Your task to perform on an android device: Open wifi settings Image 0: 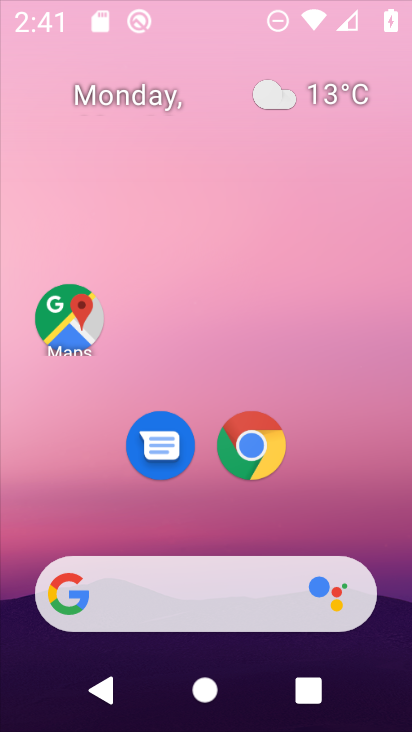
Step 0: drag from (391, 586) to (230, 113)
Your task to perform on an android device: Open wifi settings Image 1: 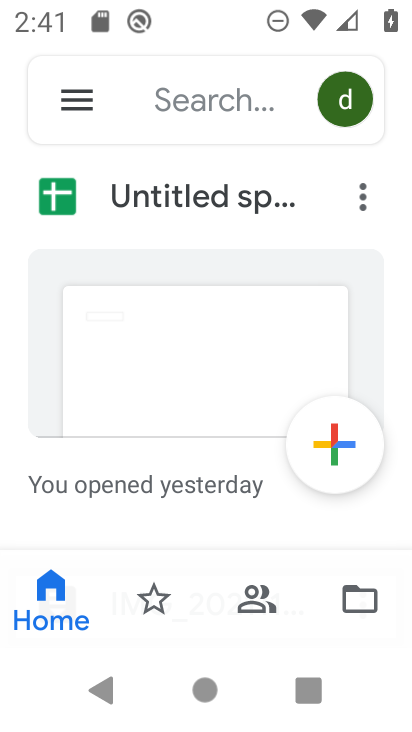
Step 1: press home button
Your task to perform on an android device: Open wifi settings Image 2: 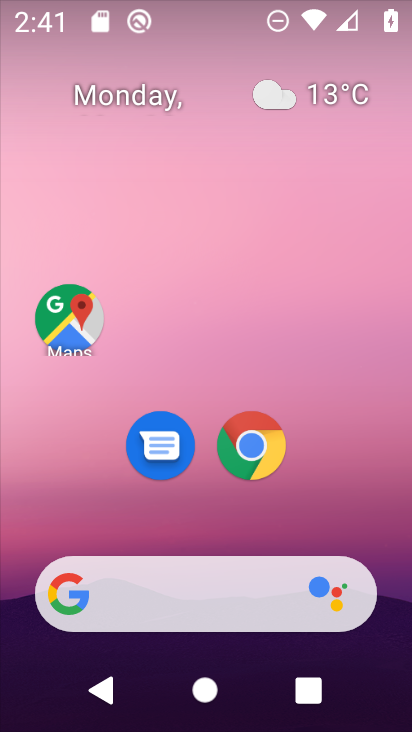
Step 2: drag from (378, 624) to (24, 3)
Your task to perform on an android device: Open wifi settings Image 3: 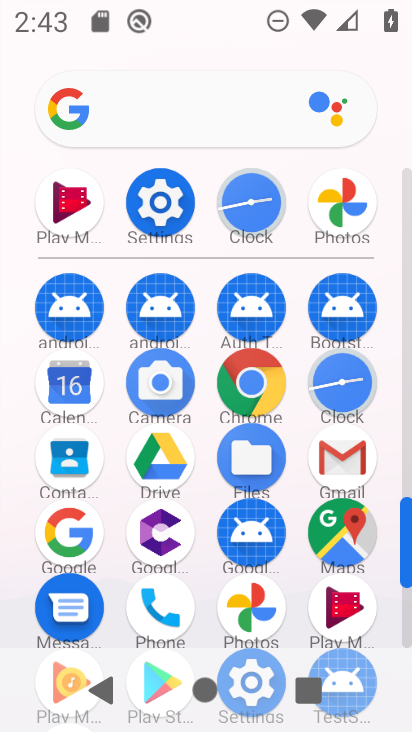
Step 3: click (169, 212)
Your task to perform on an android device: Open wifi settings Image 4: 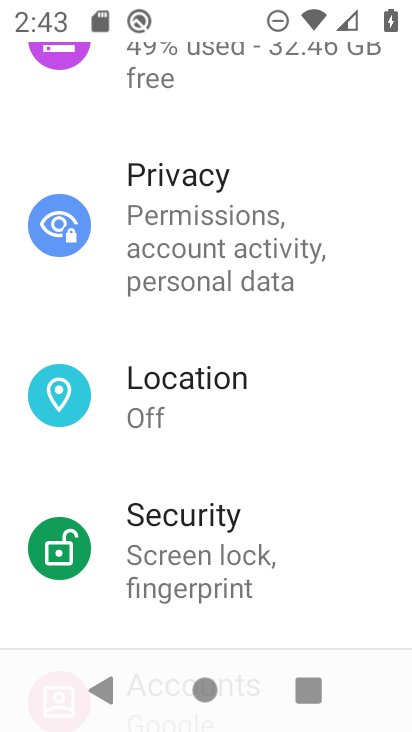
Step 4: drag from (189, 162) to (214, 599)
Your task to perform on an android device: Open wifi settings Image 5: 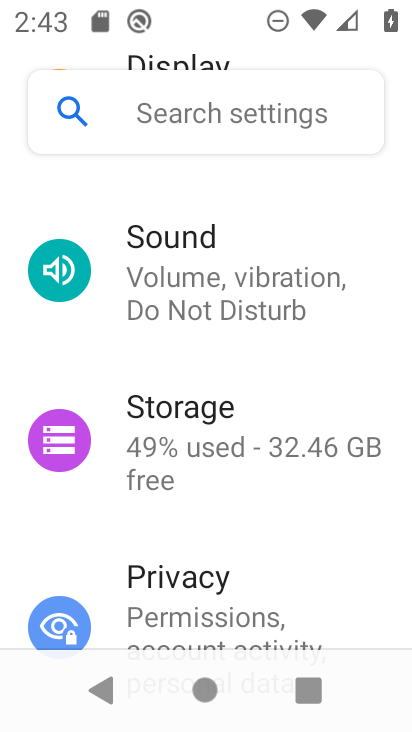
Step 5: drag from (166, 186) to (194, 508)
Your task to perform on an android device: Open wifi settings Image 6: 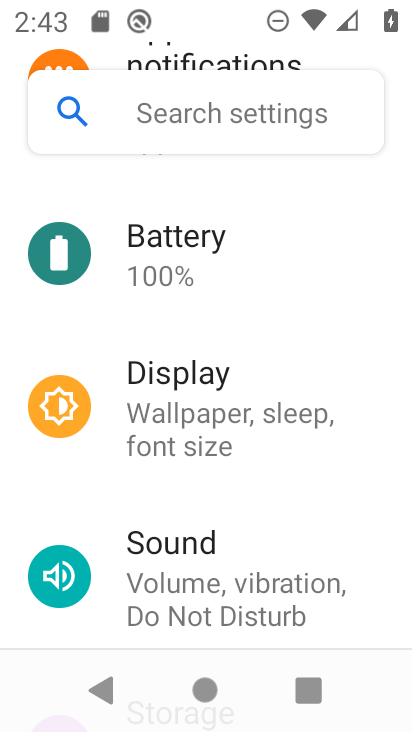
Step 6: drag from (117, 258) to (169, 459)
Your task to perform on an android device: Open wifi settings Image 7: 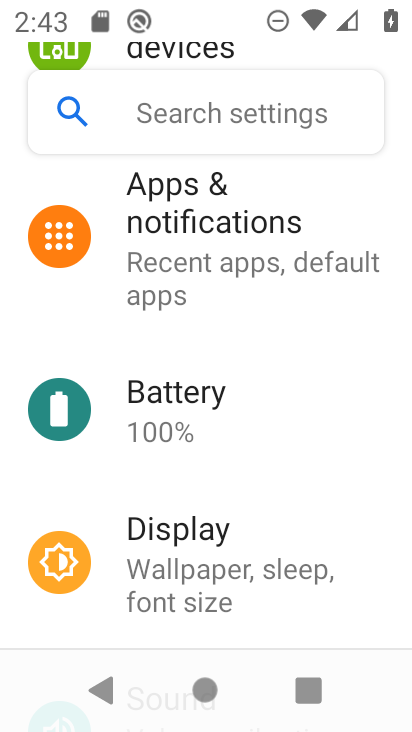
Step 7: drag from (162, 303) to (216, 647)
Your task to perform on an android device: Open wifi settings Image 8: 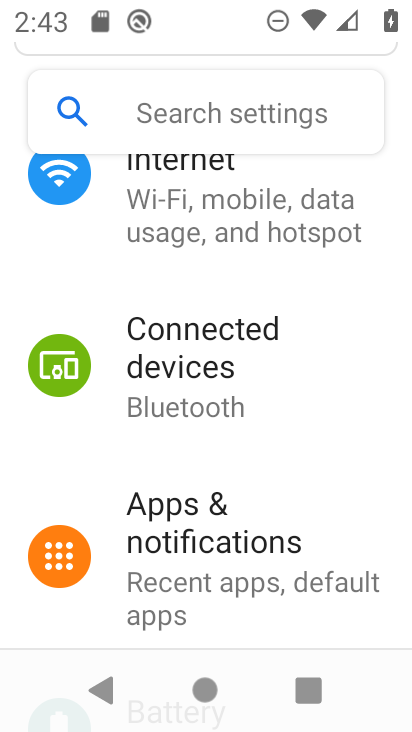
Step 8: drag from (205, 298) to (240, 594)
Your task to perform on an android device: Open wifi settings Image 9: 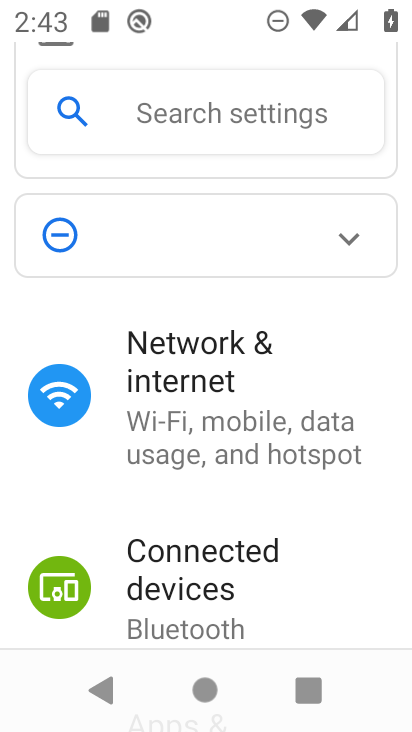
Step 9: click (207, 403)
Your task to perform on an android device: Open wifi settings Image 10: 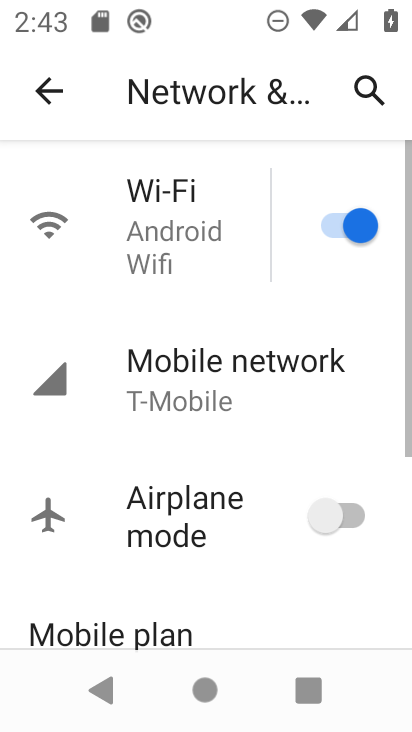
Step 10: click (180, 224)
Your task to perform on an android device: Open wifi settings Image 11: 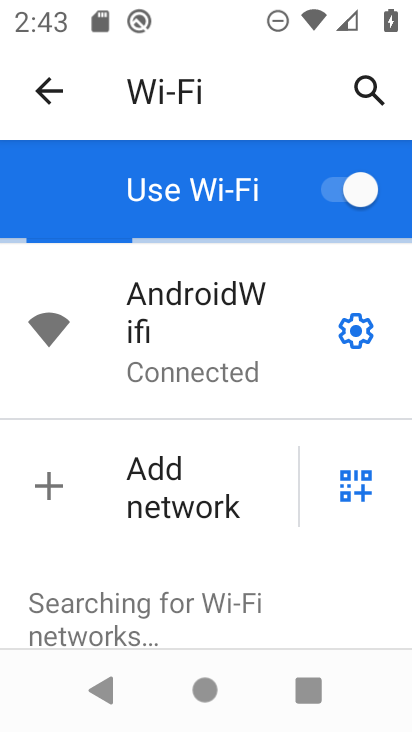
Step 11: task complete